Your task to perform on an android device: Set the phone to "Do not disturb". Image 0: 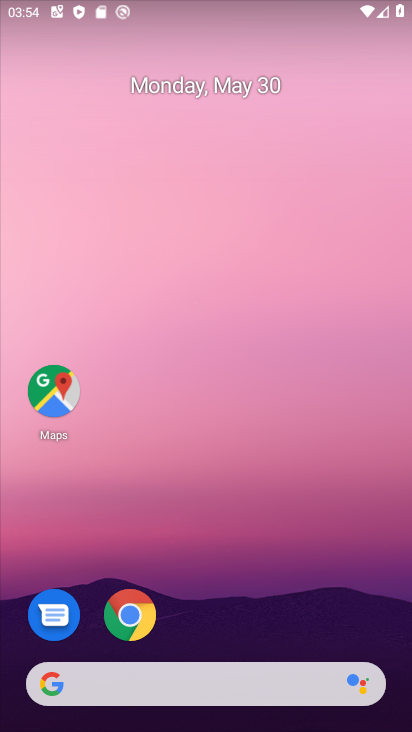
Step 0: drag from (238, 609) to (264, 90)
Your task to perform on an android device: Set the phone to "Do not disturb". Image 1: 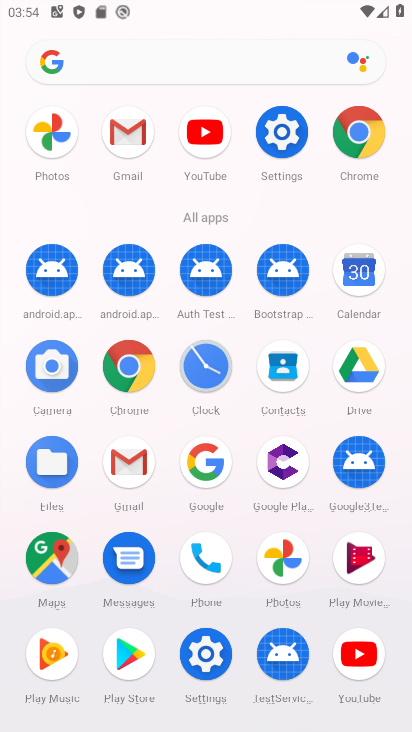
Step 1: click (281, 132)
Your task to perform on an android device: Set the phone to "Do not disturb". Image 2: 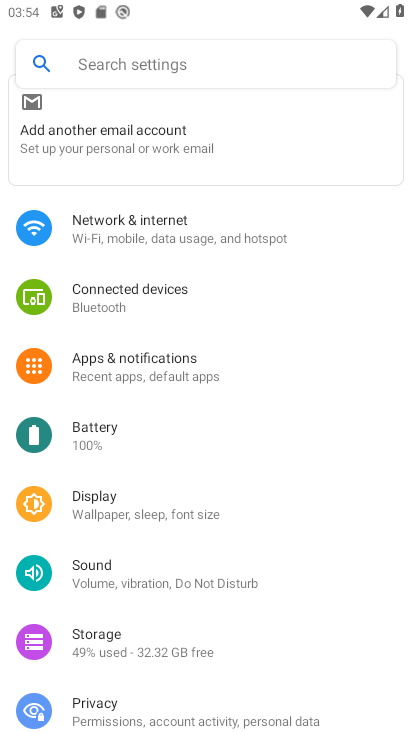
Step 2: click (171, 579)
Your task to perform on an android device: Set the phone to "Do not disturb". Image 3: 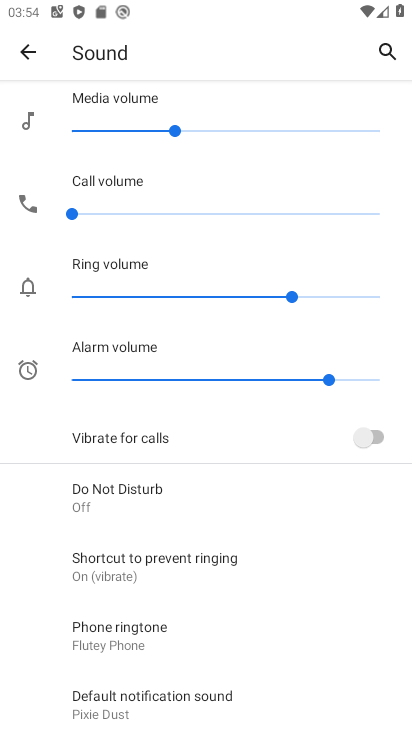
Step 3: drag from (195, 514) to (235, 420)
Your task to perform on an android device: Set the phone to "Do not disturb". Image 4: 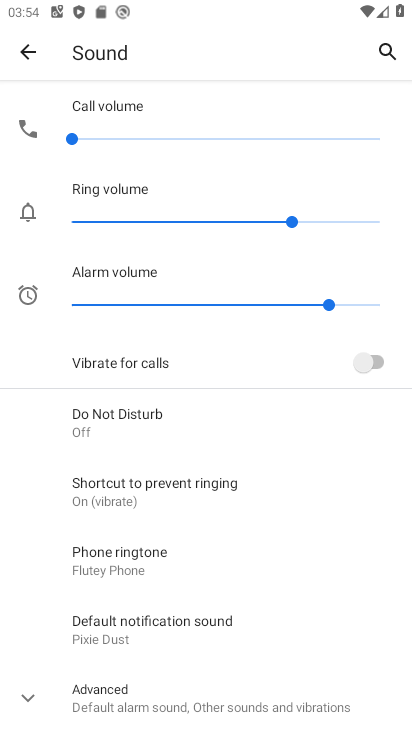
Step 4: click (158, 408)
Your task to perform on an android device: Set the phone to "Do not disturb". Image 5: 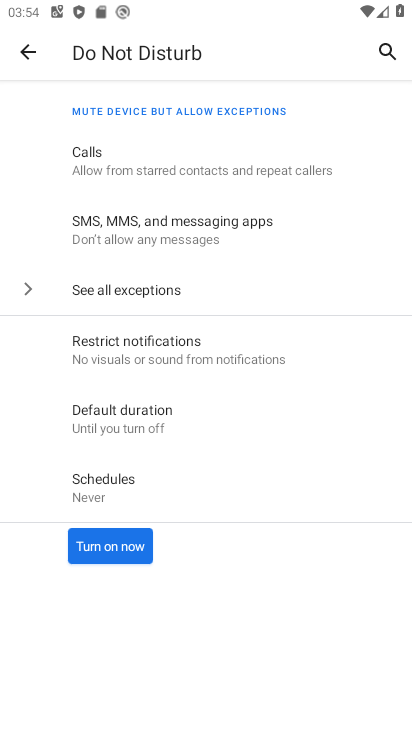
Step 5: click (121, 554)
Your task to perform on an android device: Set the phone to "Do not disturb". Image 6: 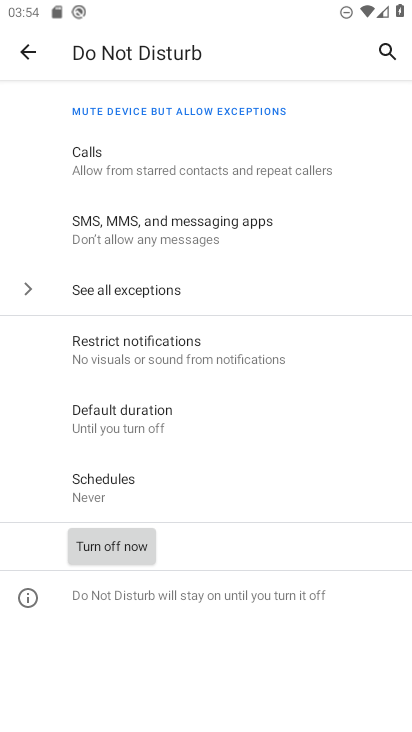
Step 6: task complete